Your task to perform on an android device: turn on showing notifications on the lock screen Image 0: 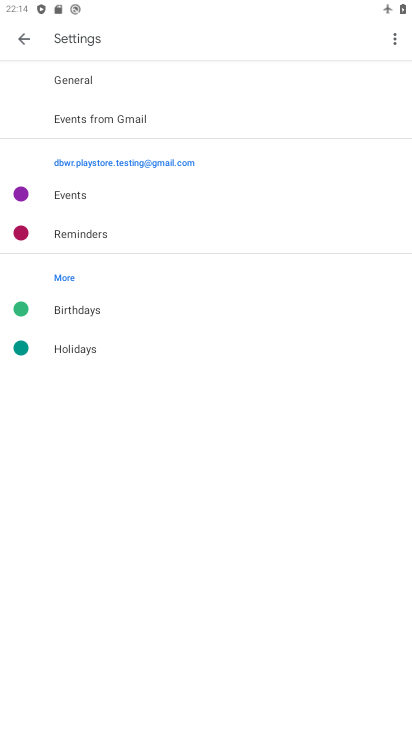
Step 0: press home button
Your task to perform on an android device: turn on showing notifications on the lock screen Image 1: 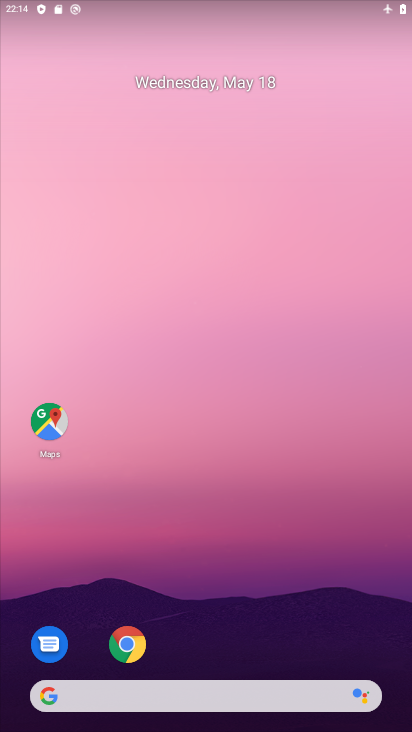
Step 1: drag from (296, 592) to (333, 122)
Your task to perform on an android device: turn on showing notifications on the lock screen Image 2: 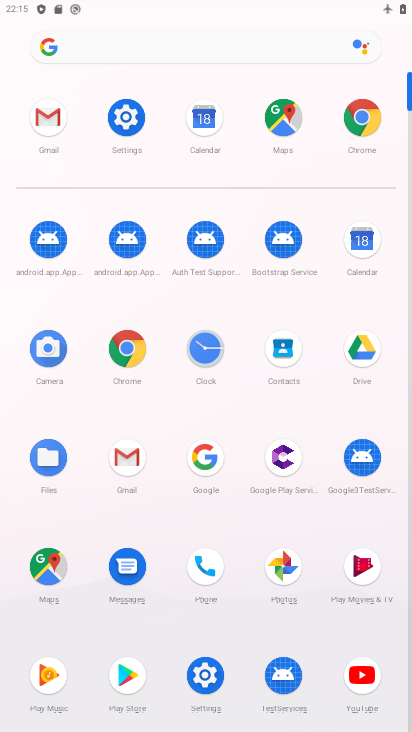
Step 2: click (128, 118)
Your task to perform on an android device: turn on showing notifications on the lock screen Image 3: 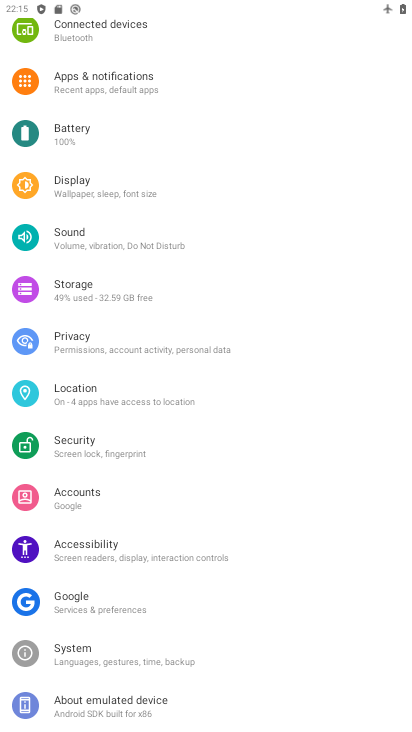
Step 3: click (134, 94)
Your task to perform on an android device: turn on showing notifications on the lock screen Image 4: 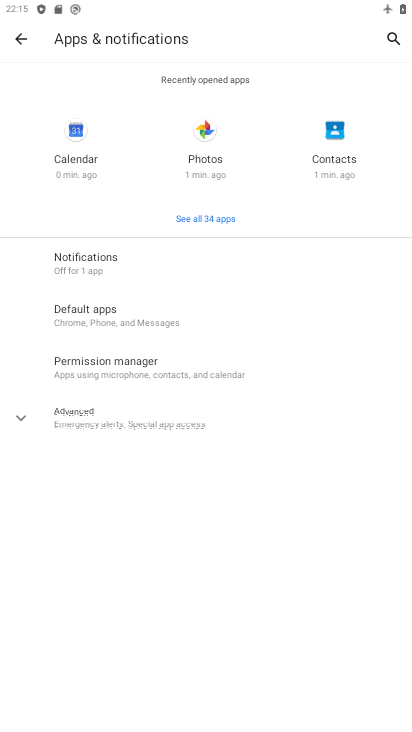
Step 4: click (104, 258)
Your task to perform on an android device: turn on showing notifications on the lock screen Image 5: 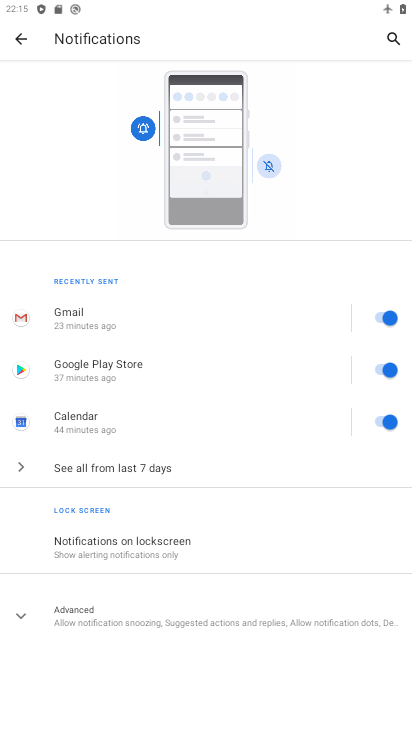
Step 5: click (161, 536)
Your task to perform on an android device: turn on showing notifications on the lock screen Image 6: 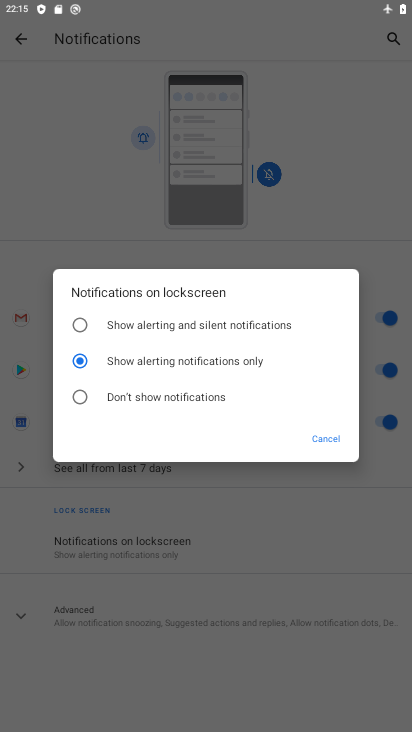
Step 6: task complete